Your task to perform on an android device: add a label to a message in the gmail app Image 0: 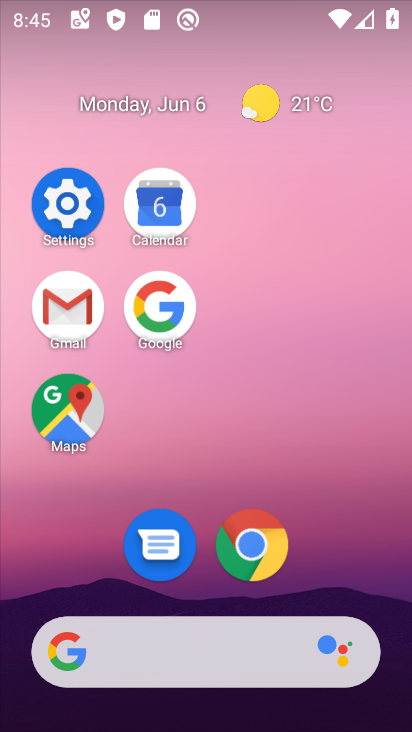
Step 0: click (84, 310)
Your task to perform on an android device: add a label to a message in the gmail app Image 1: 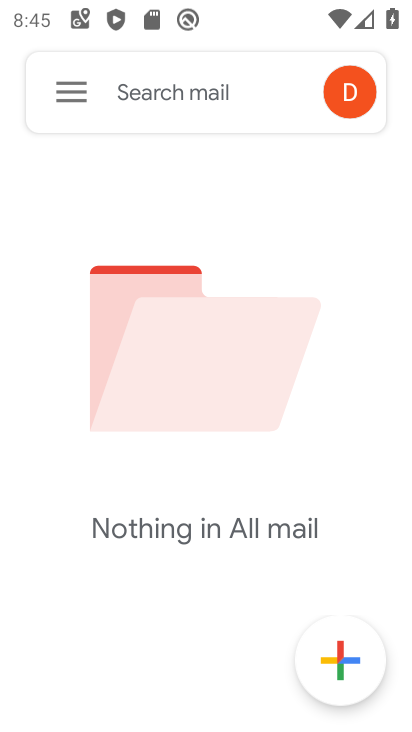
Step 1: task complete